Your task to perform on an android device: Toggle the flashlight Image 0: 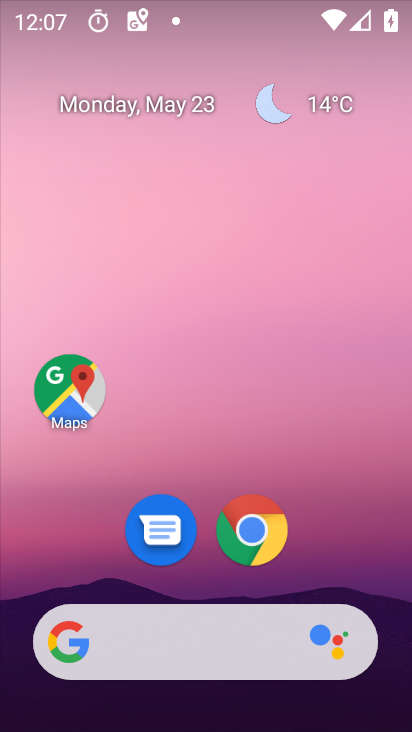
Step 0: drag from (381, 626) to (344, 374)
Your task to perform on an android device: Toggle the flashlight Image 1: 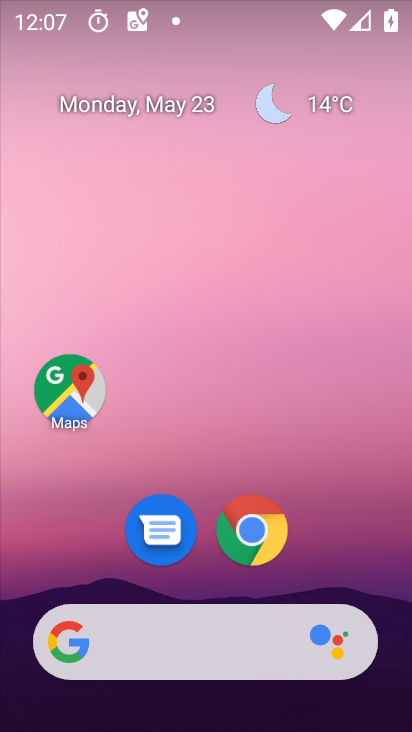
Step 1: drag from (396, 714) to (354, 187)
Your task to perform on an android device: Toggle the flashlight Image 2: 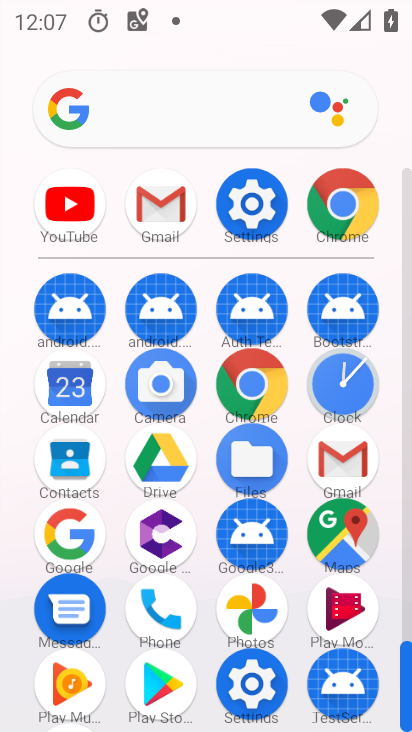
Step 2: click (225, 201)
Your task to perform on an android device: Toggle the flashlight Image 3: 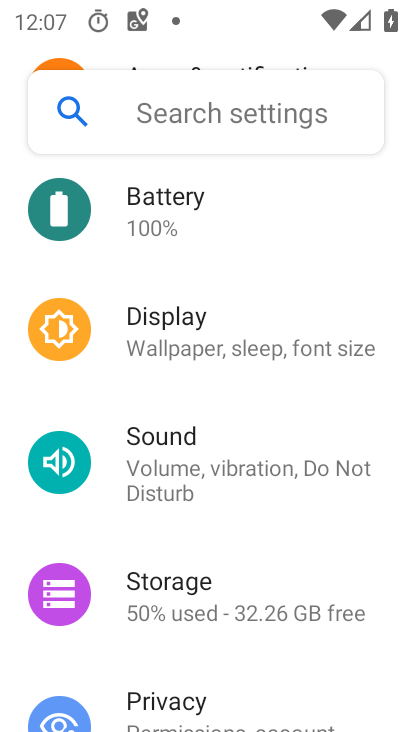
Step 3: drag from (346, 213) to (371, 564)
Your task to perform on an android device: Toggle the flashlight Image 4: 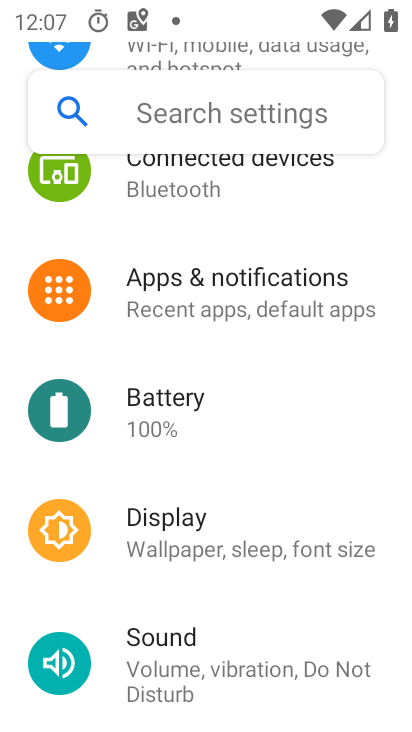
Step 4: click (207, 519)
Your task to perform on an android device: Toggle the flashlight Image 5: 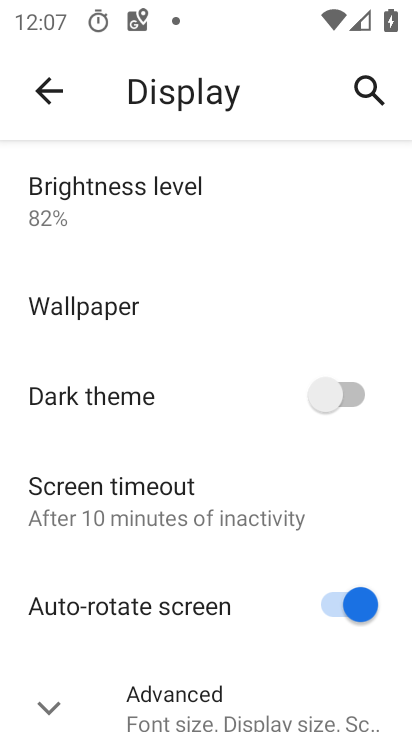
Step 5: task complete